Your task to perform on an android device: turn off notifications settings in the gmail app Image 0: 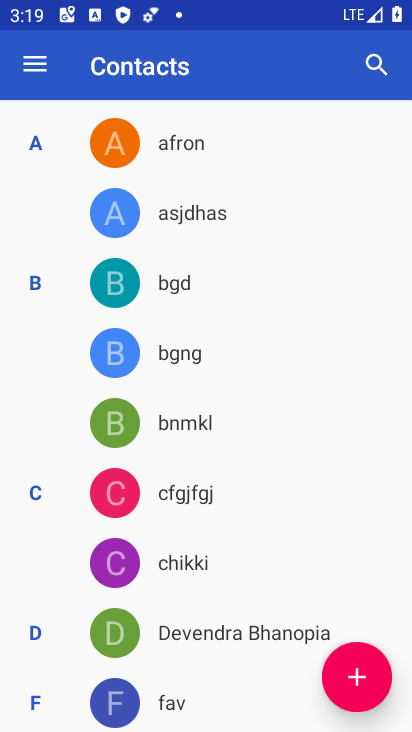
Step 0: press back button
Your task to perform on an android device: turn off notifications settings in the gmail app Image 1: 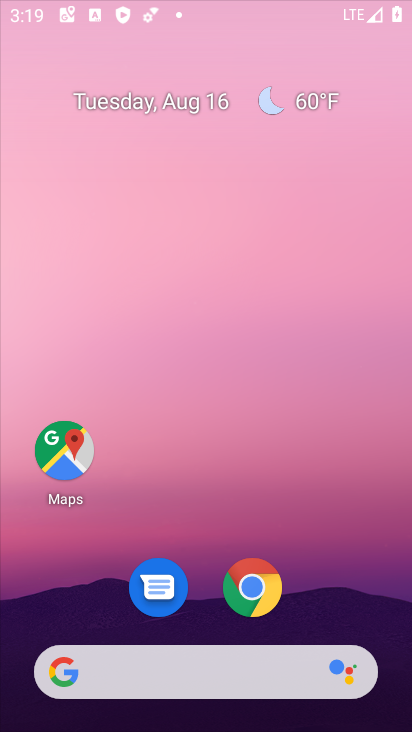
Step 1: press back button
Your task to perform on an android device: turn off notifications settings in the gmail app Image 2: 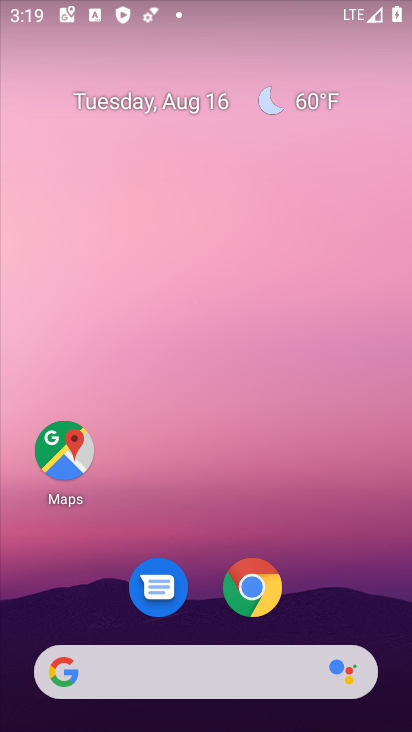
Step 2: drag from (231, 556) to (291, 49)
Your task to perform on an android device: turn off notifications settings in the gmail app Image 3: 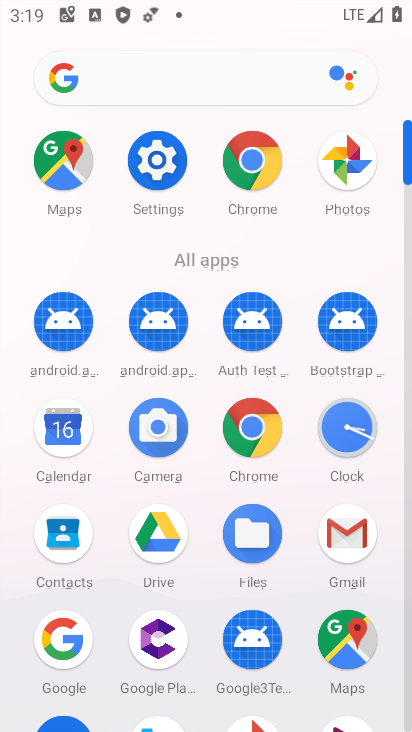
Step 3: click (349, 534)
Your task to perform on an android device: turn off notifications settings in the gmail app Image 4: 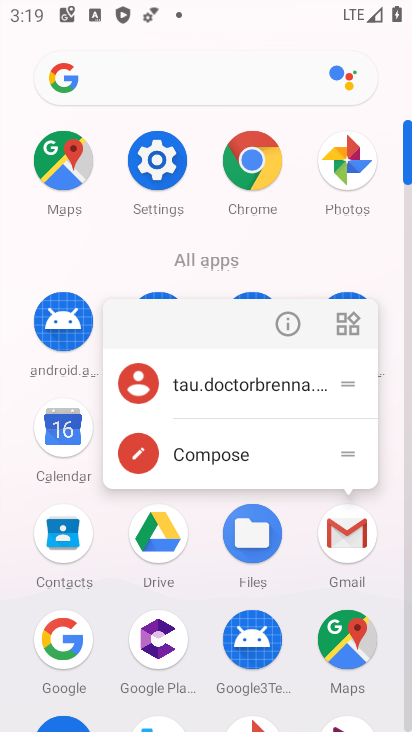
Step 4: click (288, 326)
Your task to perform on an android device: turn off notifications settings in the gmail app Image 5: 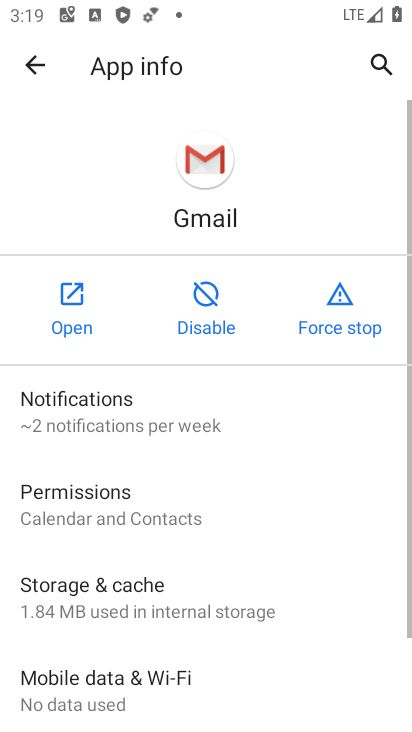
Step 5: click (127, 422)
Your task to perform on an android device: turn off notifications settings in the gmail app Image 6: 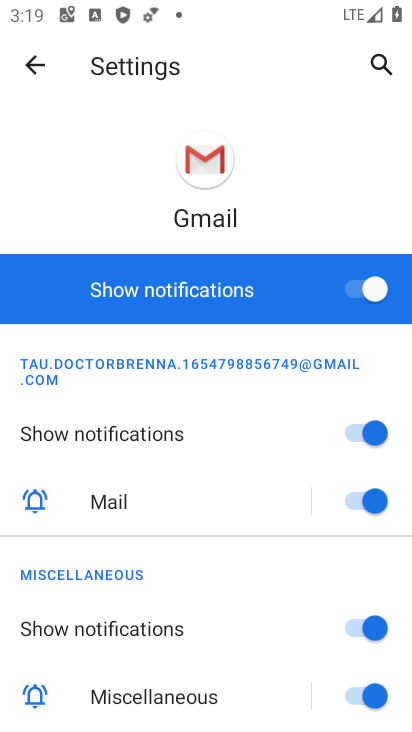
Step 6: click (364, 290)
Your task to perform on an android device: turn off notifications settings in the gmail app Image 7: 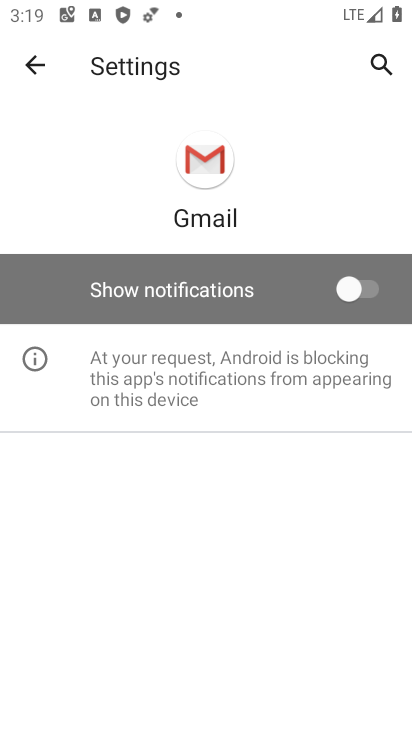
Step 7: task complete